Your task to perform on an android device: Open accessibility settings Image 0: 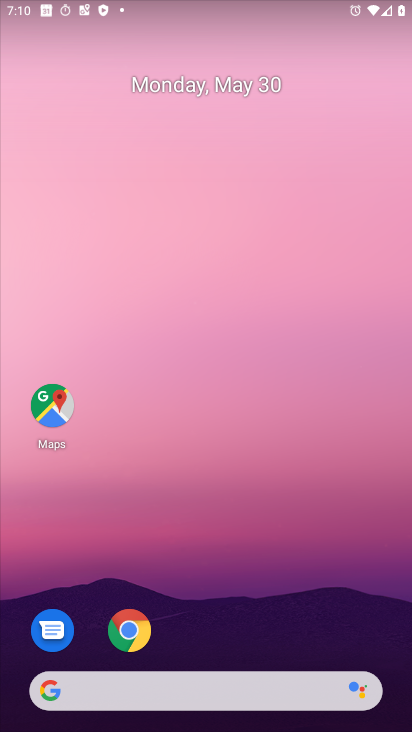
Step 0: click (291, 3)
Your task to perform on an android device: Open accessibility settings Image 1: 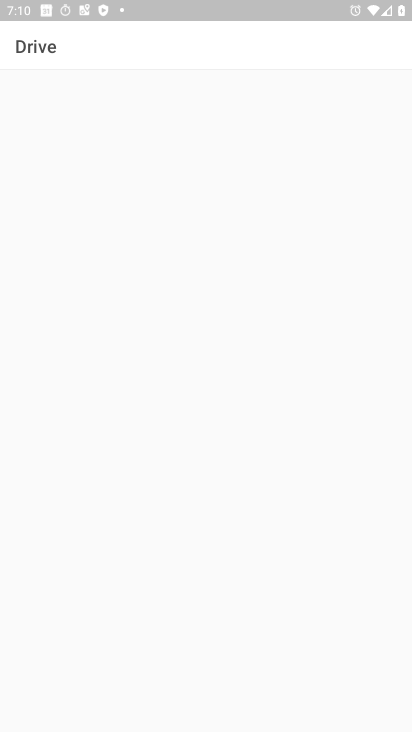
Step 1: press home button
Your task to perform on an android device: Open accessibility settings Image 2: 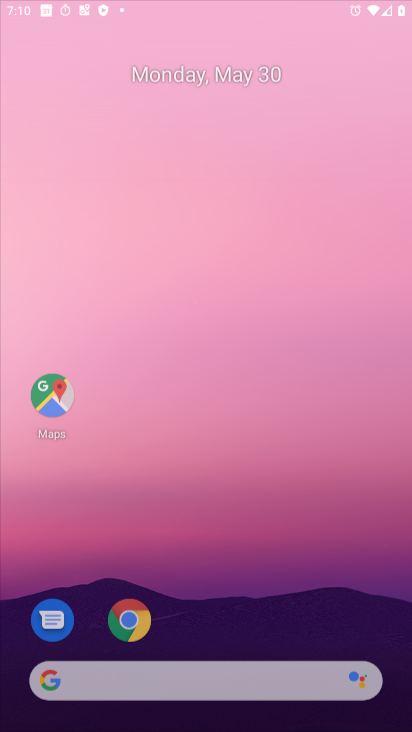
Step 2: drag from (374, 674) to (297, 32)
Your task to perform on an android device: Open accessibility settings Image 3: 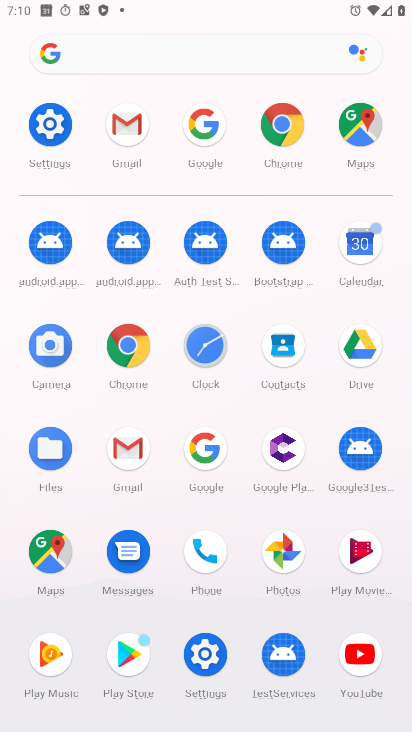
Step 3: click (65, 123)
Your task to perform on an android device: Open accessibility settings Image 4: 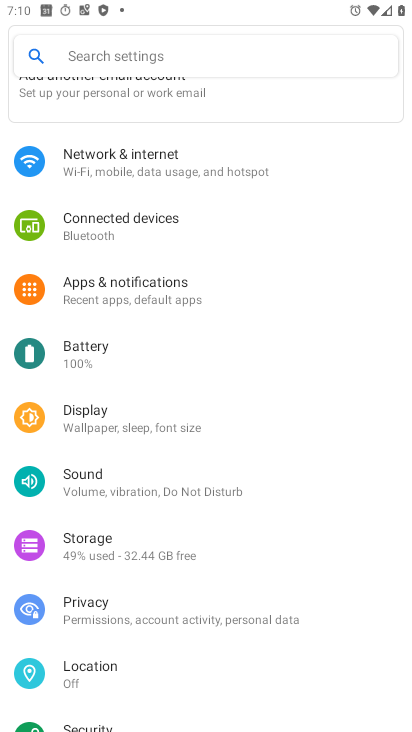
Step 4: drag from (156, 600) to (181, 180)
Your task to perform on an android device: Open accessibility settings Image 5: 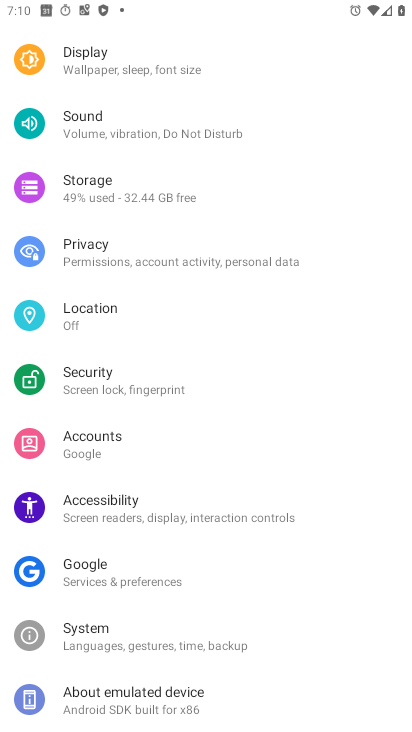
Step 5: click (189, 505)
Your task to perform on an android device: Open accessibility settings Image 6: 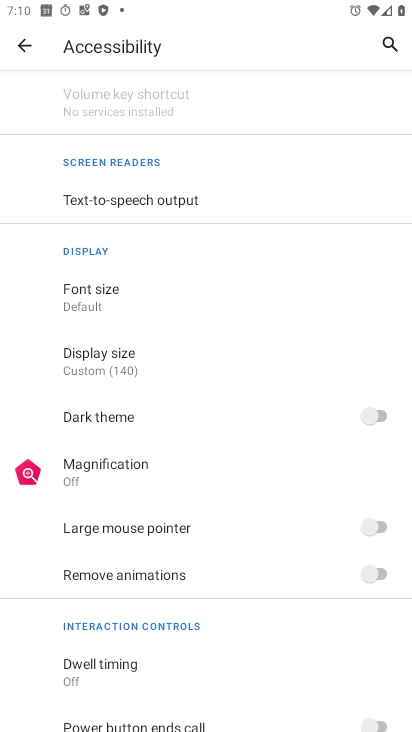
Step 6: task complete